Your task to perform on an android device: choose inbox layout in the gmail app Image 0: 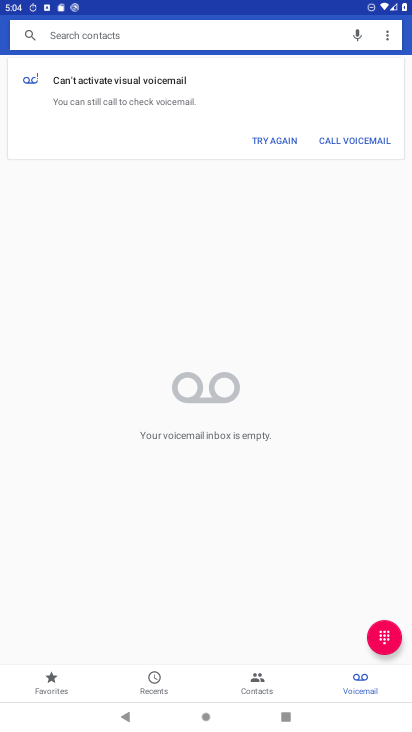
Step 0: press home button
Your task to perform on an android device: choose inbox layout in the gmail app Image 1: 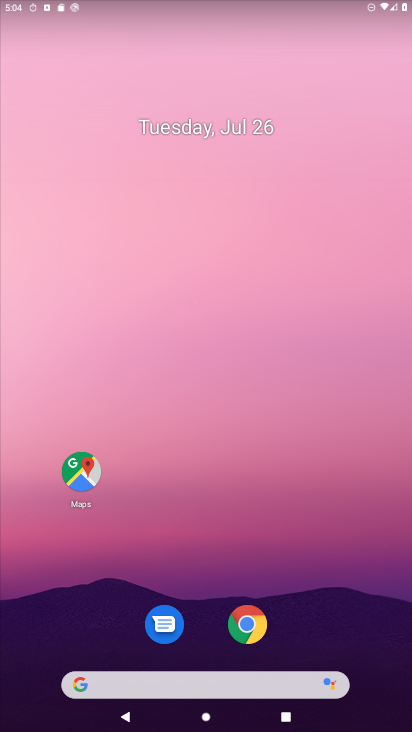
Step 1: drag from (164, 678) to (406, 521)
Your task to perform on an android device: choose inbox layout in the gmail app Image 2: 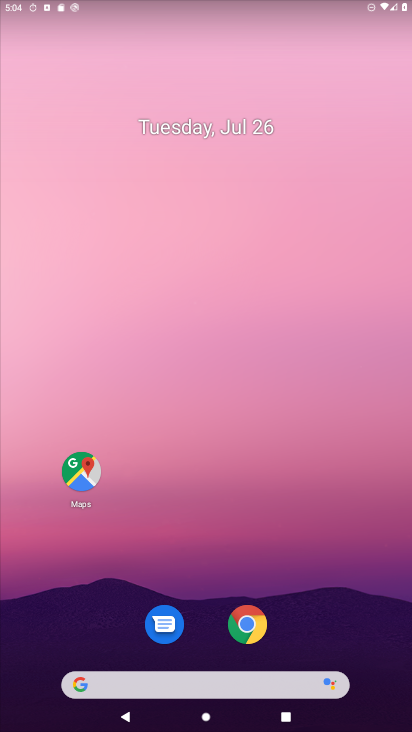
Step 2: drag from (299, 653) to (346, 56)
Your task to perform on an android device: choose inbox layout in the gmail app Image 3: 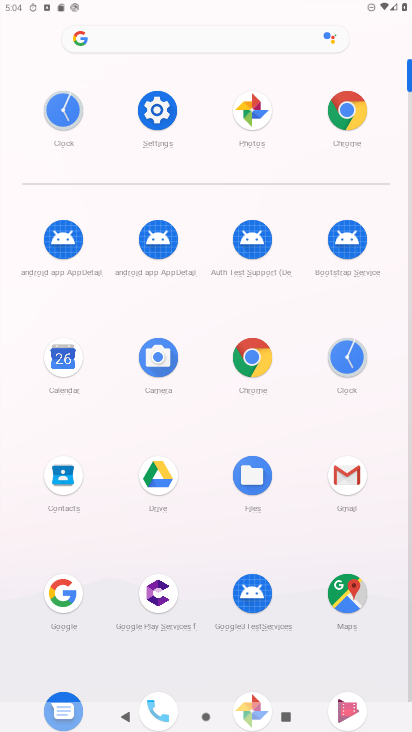
Step 3: click (347, 472)
Your task to perform on an android device: choose inbox layout in the gmail app Image 4: 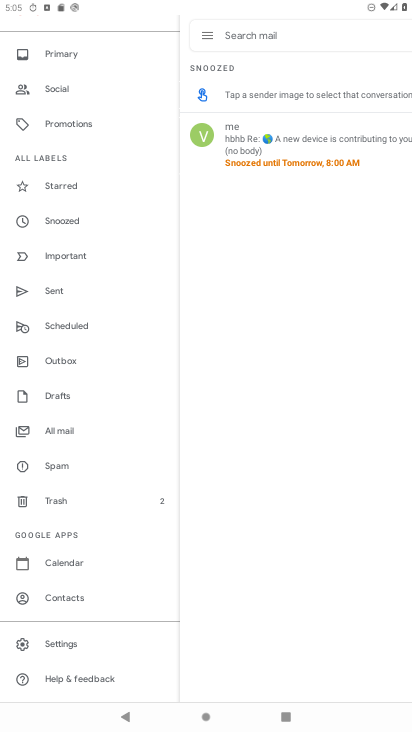
Step 4: click (79, 653)
Your task to perform on an android device: choose inbox layout in the gmail app Image 5: 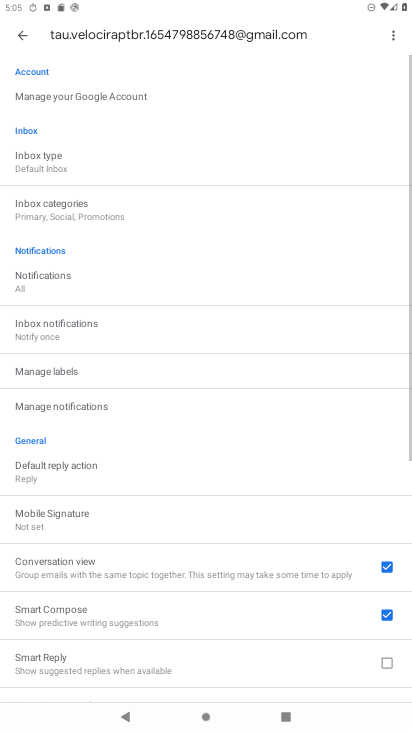
Step 5: click (68, 153)
Your task to perform on an android device: choose inbox layout in the gmail app Image 6: 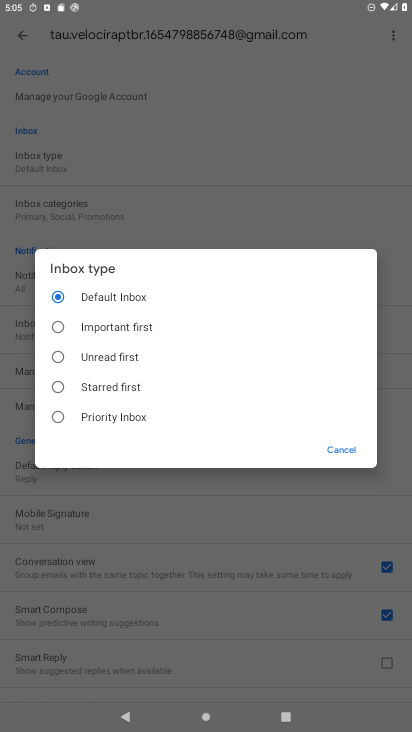
Step 6: click (64, 423)
Your task to perform on an android device: choose inbox layout in the gmail app Image 7: 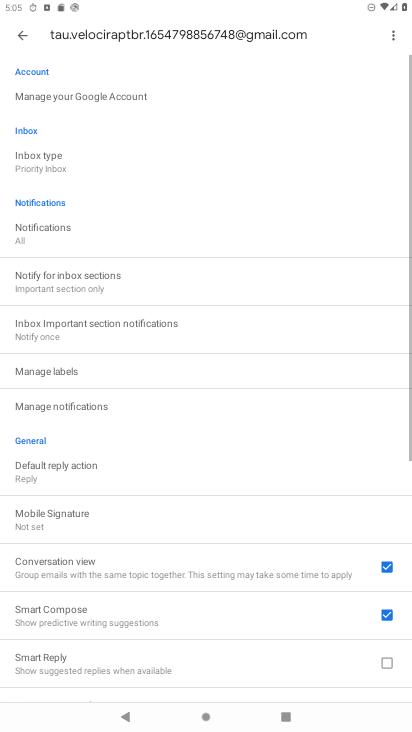
Step 7: task complete